Your task to perform on an android device: turn off wifi Image 0: 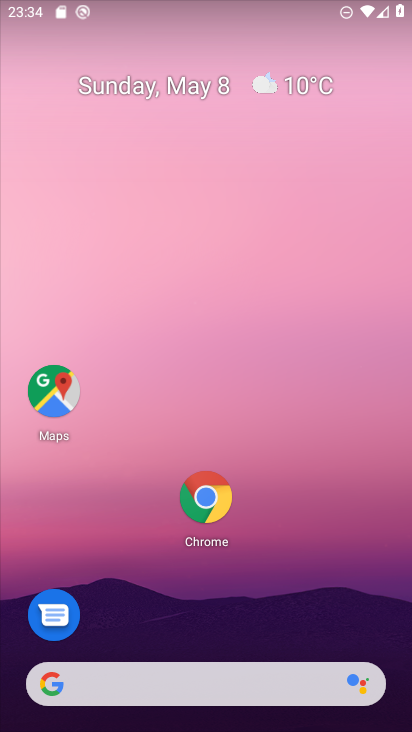
Step 0: drag from (294, 496) to (331, 92)
Your task to perform on an android device: turn off wifi Image 1: 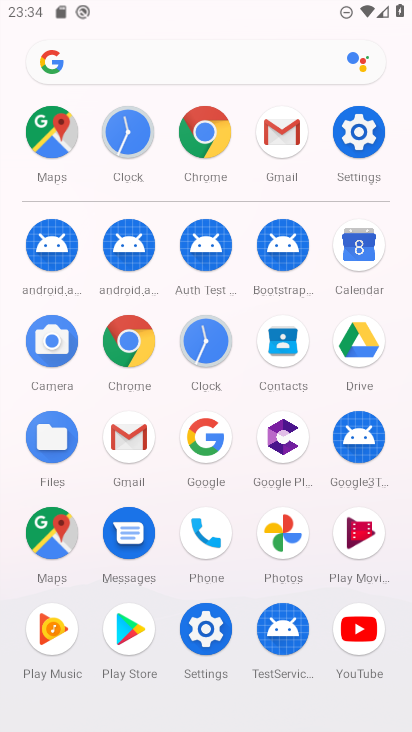
Step 1: click (362, 124)
Your task to perform on an android device: turn off wifi Image 2: 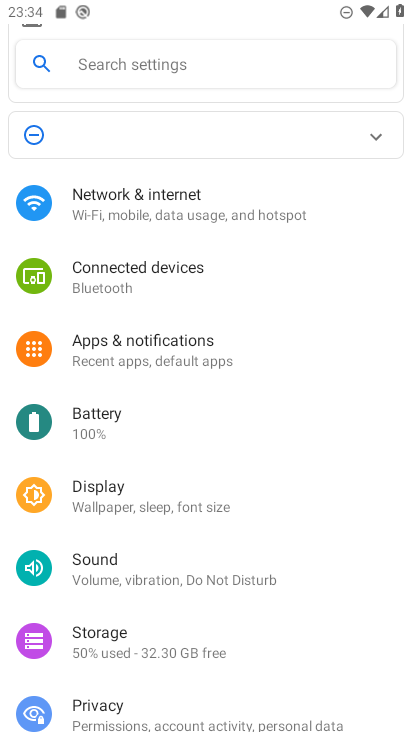
Step 2: click (187, 207)
Your task to perform on an android device: turn off wifi Image 3: 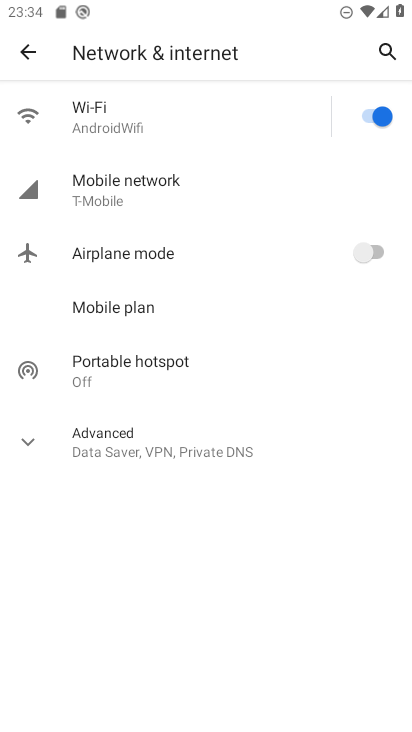
Step 3: click (355, 114)
Your task to perform on an android device: turn off wifi Image 4: 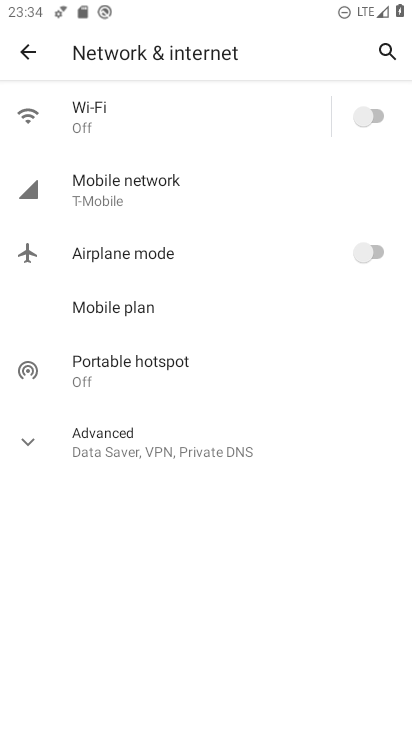
Step 4: task complete